Your task to perform on an android device: check storage Image 0: 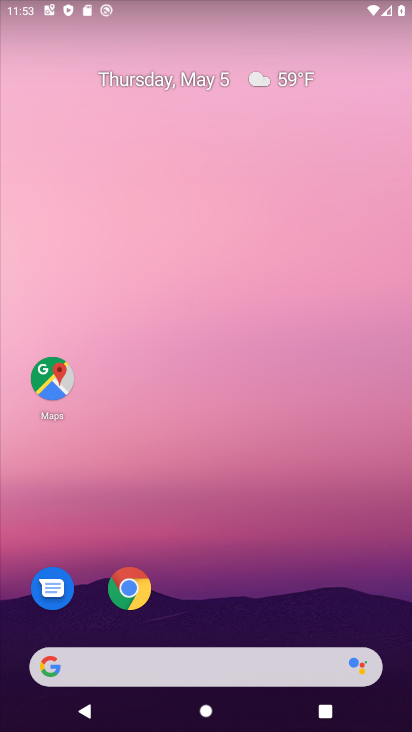
Step 0: drag from (287, 490) to (244, 0)
Your task to perform on an android device: check storage Image 1: 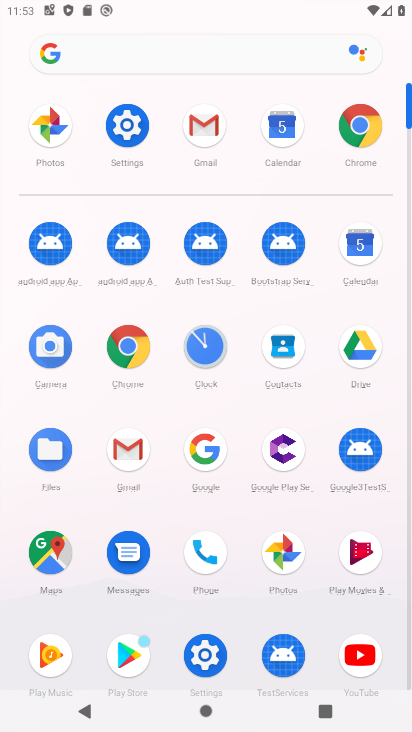
Step 1: click (122, 129)
Your task to perform on an android device: check storage Image 2: 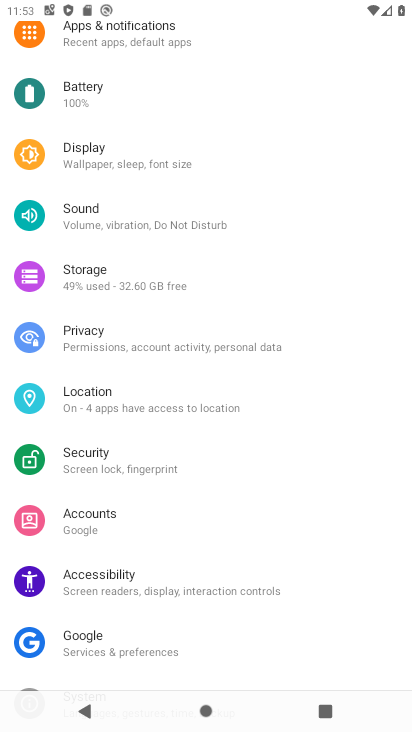
Step 2: click (145, 276)
Your task to perform on an android device: check storage Image 3: 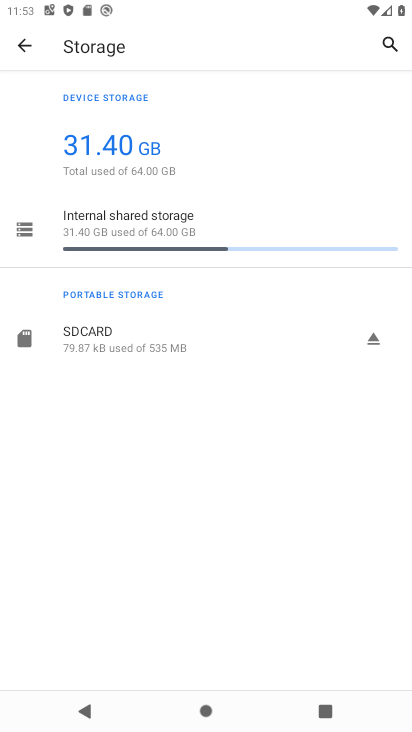
Step 3: task complete